Your task to perform on an android device: delete a single message in the gmail app Image 0: 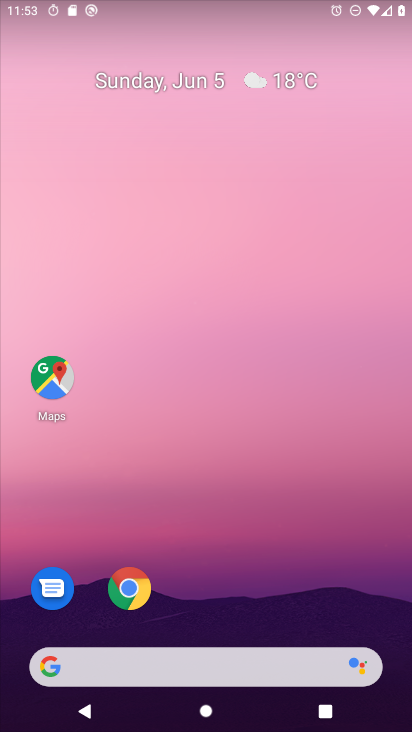
Step 0: drag from (358, 609) to (351, 219)
Your task to perform on an android device: delete a single message in the gmail app Image 1: 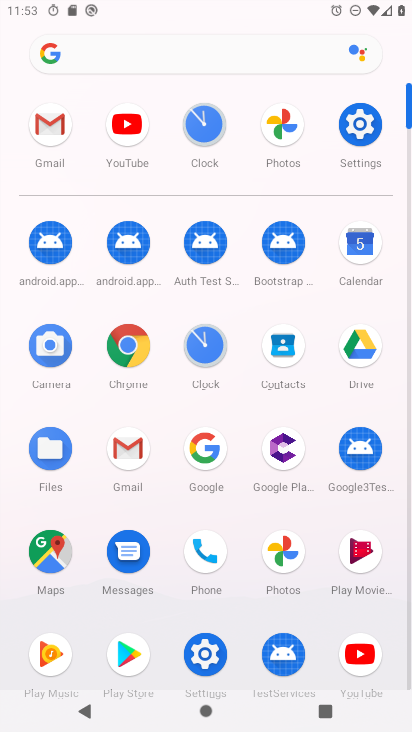
Step 1: click (60, 146)
Your task to perform on an android device: delete a single message in the gmail app Image 2: 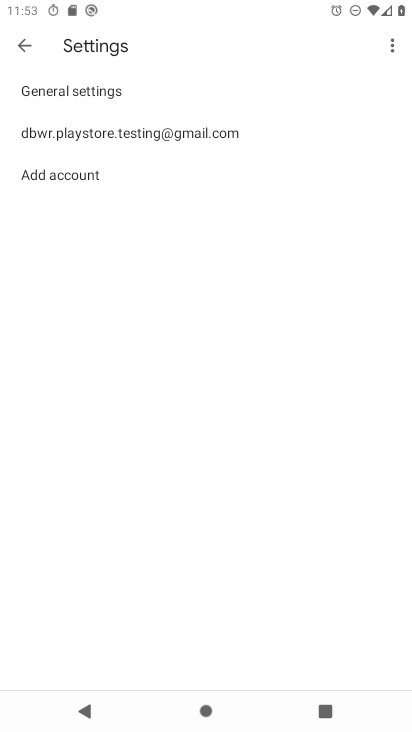
Step 2: task complete